Your task to perform on an android device: uninstall "Venmo" Image 0: 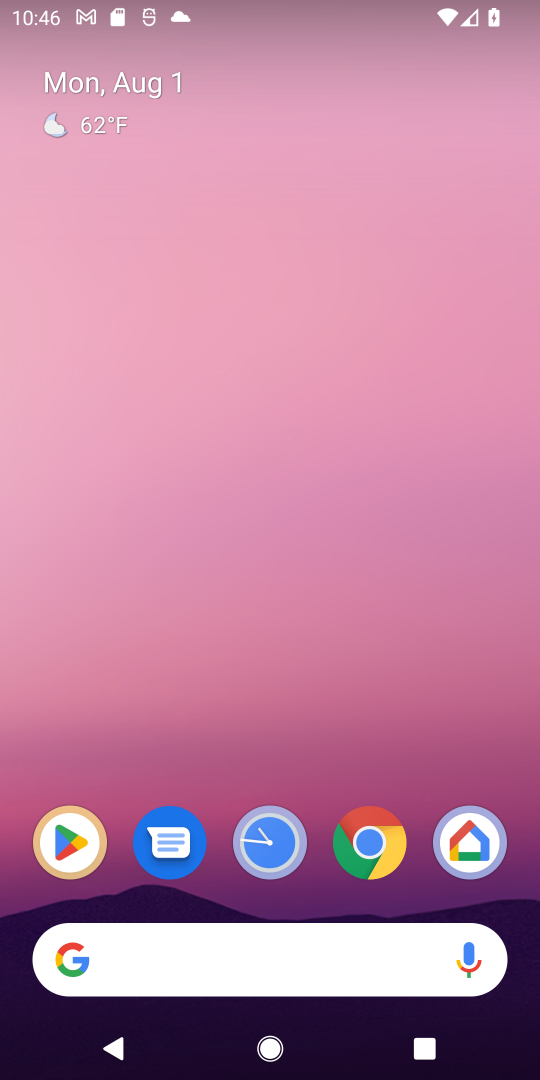
Step 0: drag from (249, 863) to (336, 24)
Your task to perform on an android device: uninstall "Venmo" Image 1: 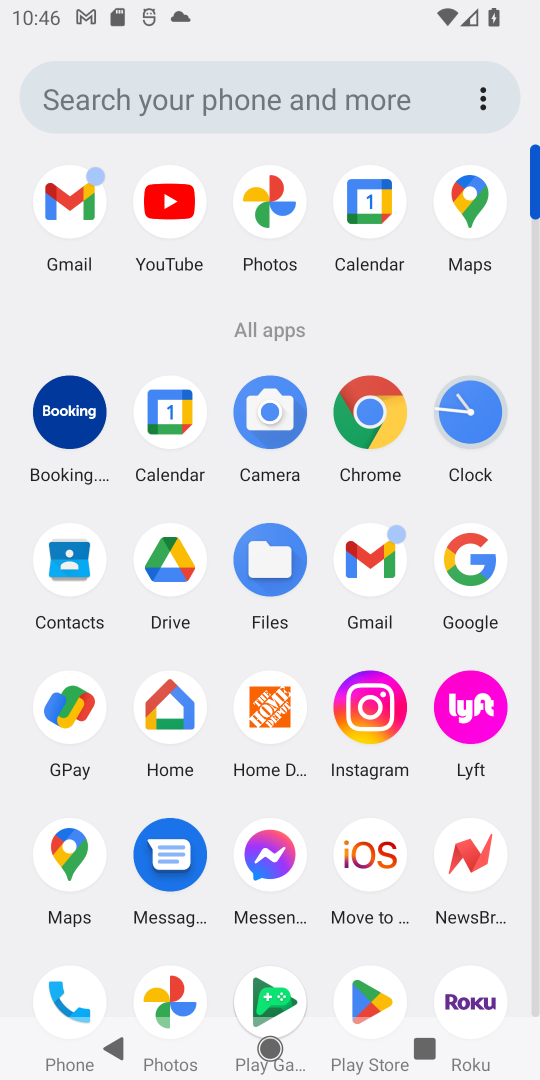
Step 1: click (370, 983)
Your task to perform on an android device: uninstall "Venmo" Image 2: 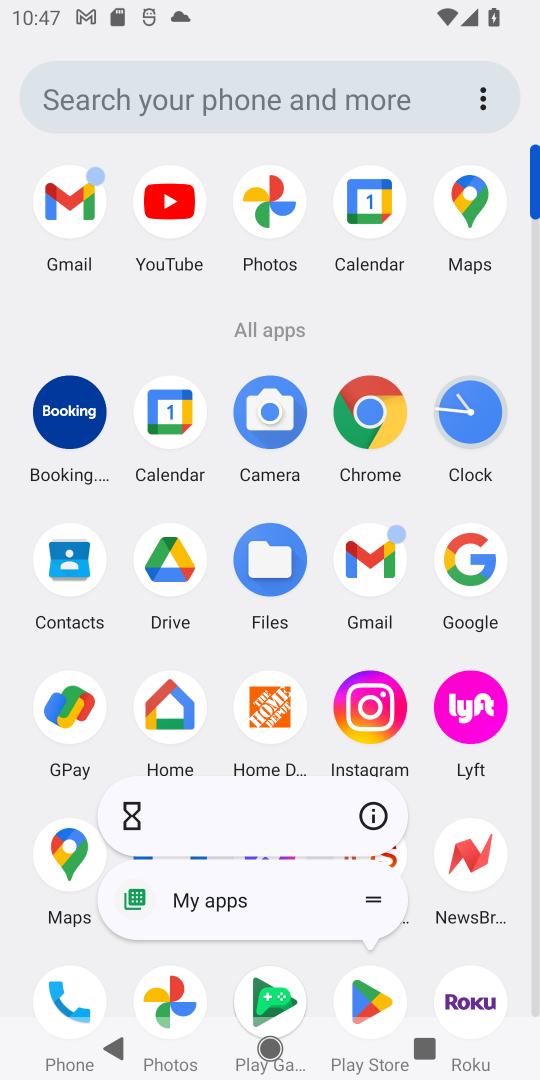
Step 2: click (110, 311)
Your task to perform on an android device: uninstall "Venmo" Image 3: 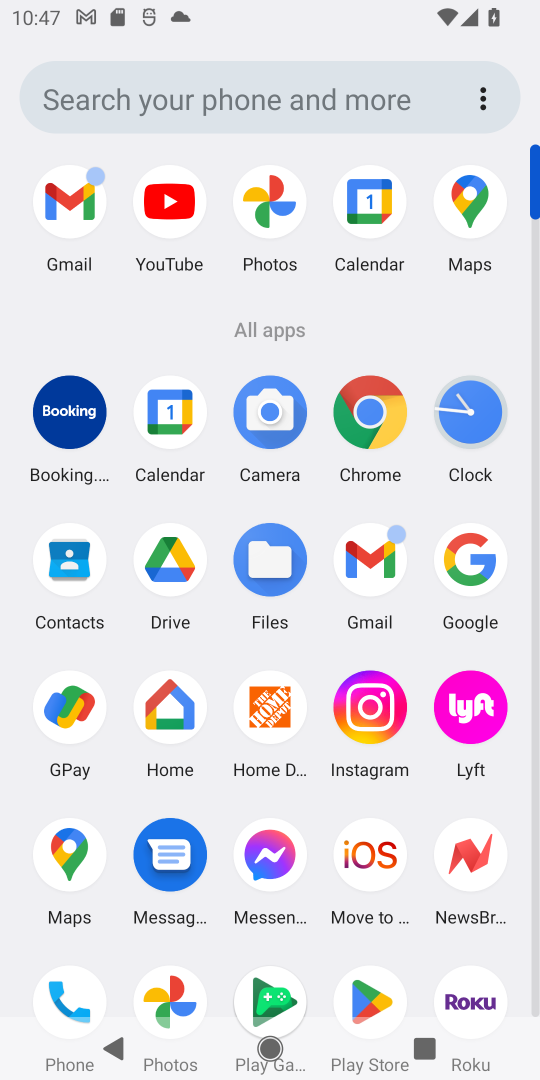
Step 3: click (356, 986)
Your task to perform on an android device: uninstall "Venmo" Image 4: 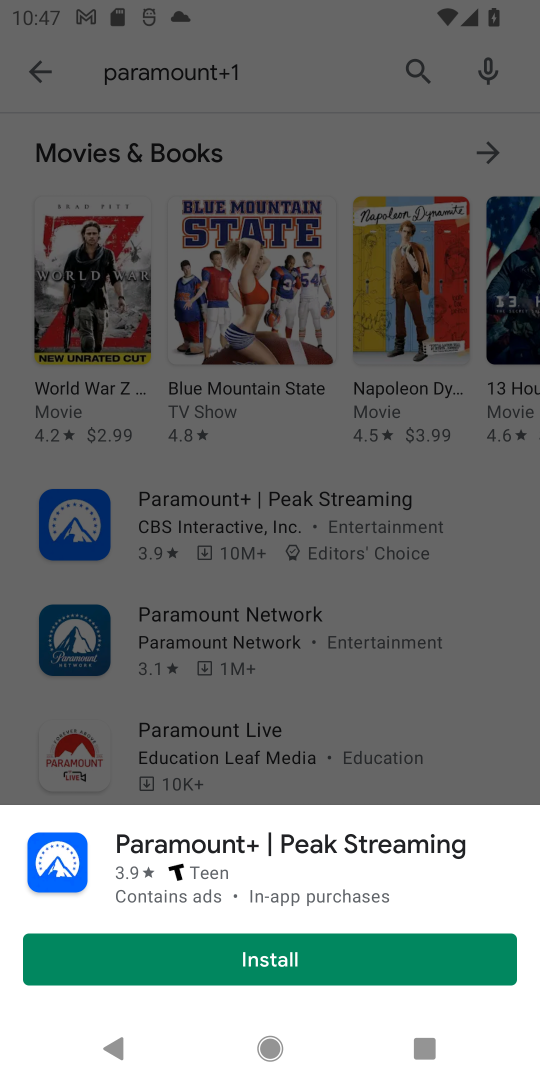
Step 4: click (370, 84)
Your task to perform on an android device: uninstall "Venmo" Image 5: 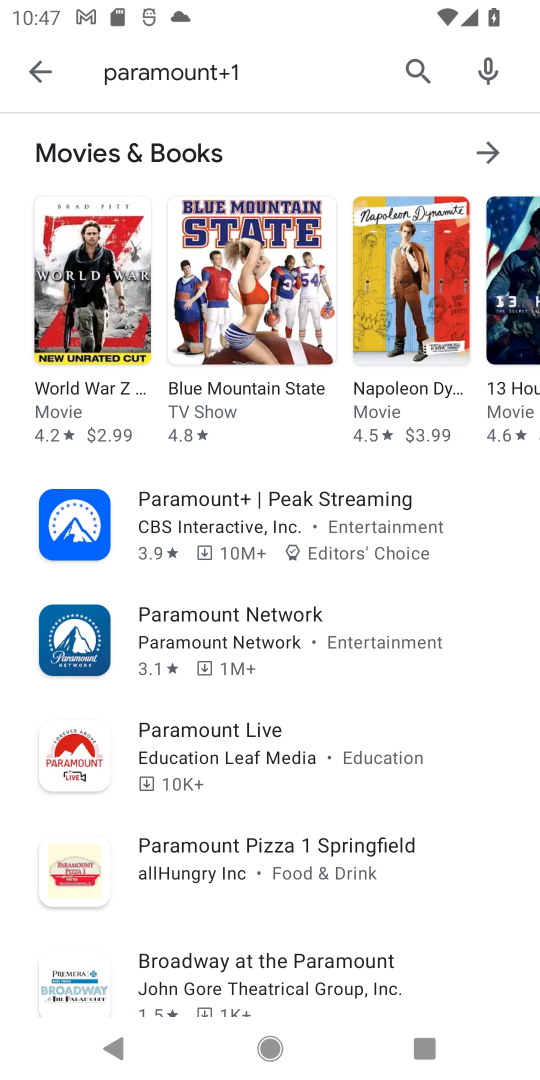
Step 5: click (411, 73)
Your task to perform on an android device: uninstall "Venmo" Image 6: 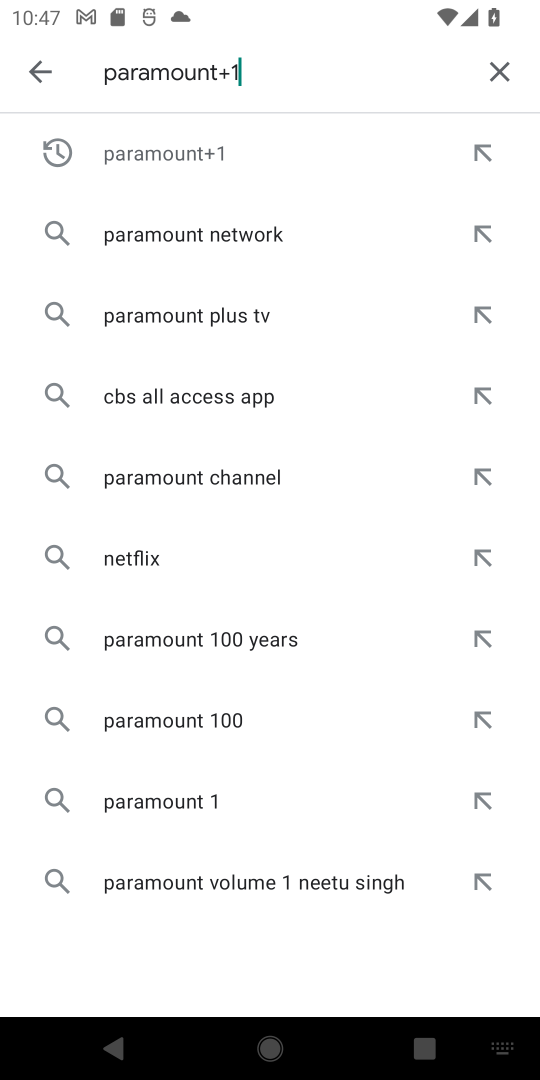
Step 6: click (488, 68)
Your task to perform on an android device: uninstall "Venmo" Image 7: 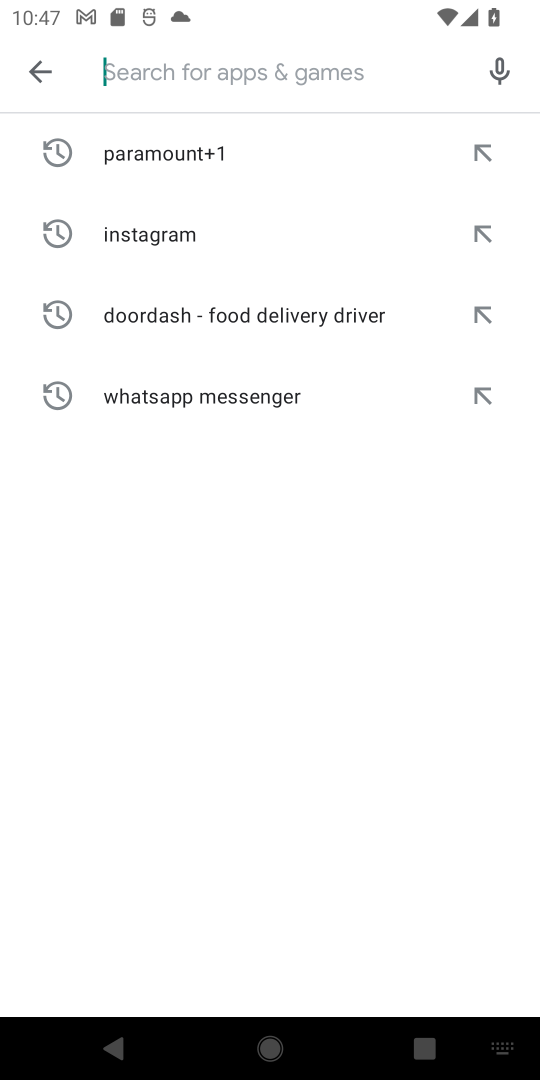
Step 7: click (180, 53)
Your task to perform on an android device: uninstall "Venmo" Image 8: 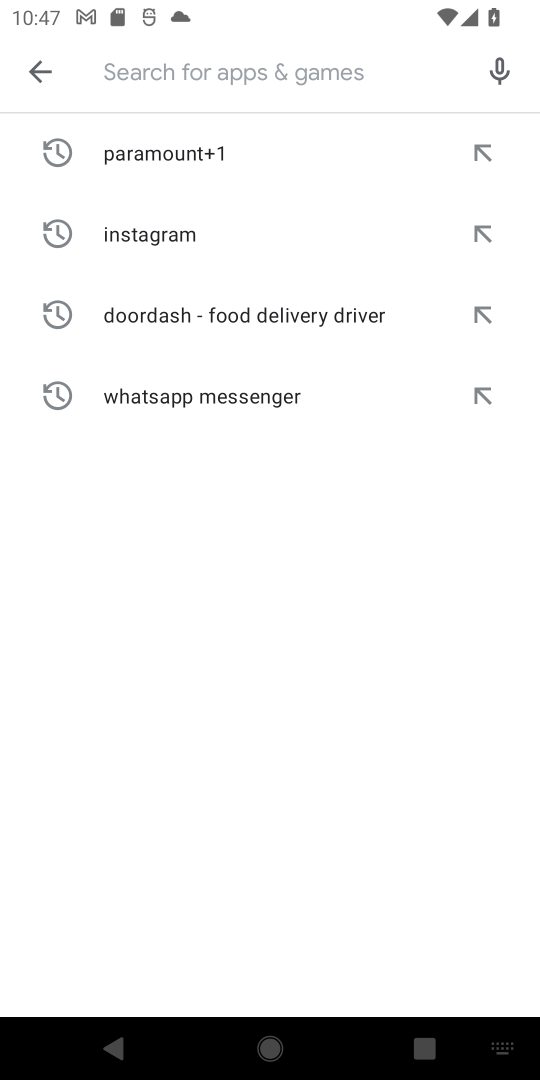
Step 8: type "Venmo"
Your task to perform on an android device: uninstall "Venmo" Image 9: 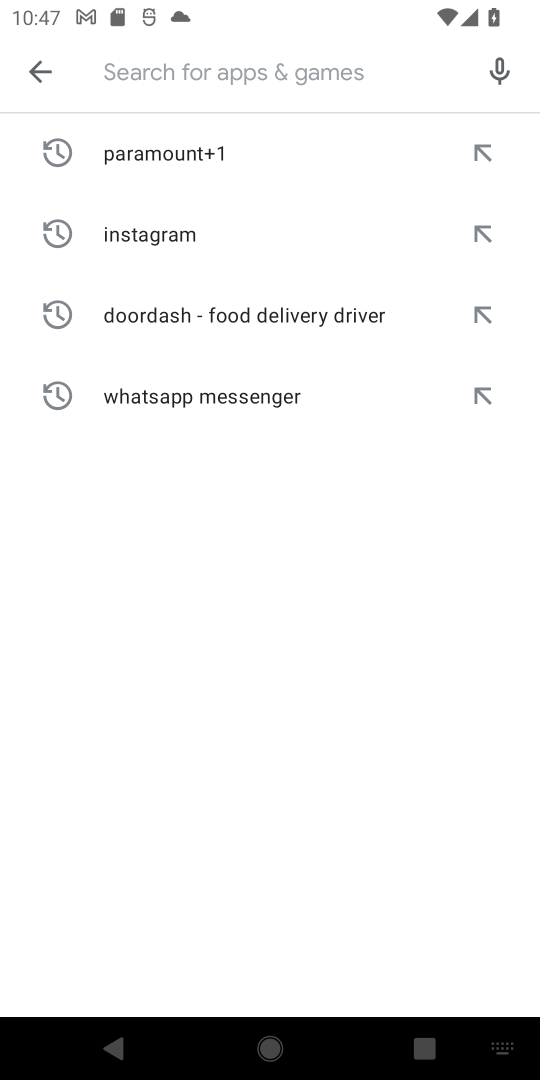
Step 9: click (240, 646)
Your task to perform on an android device: uninstall "Venmo" Image 10: 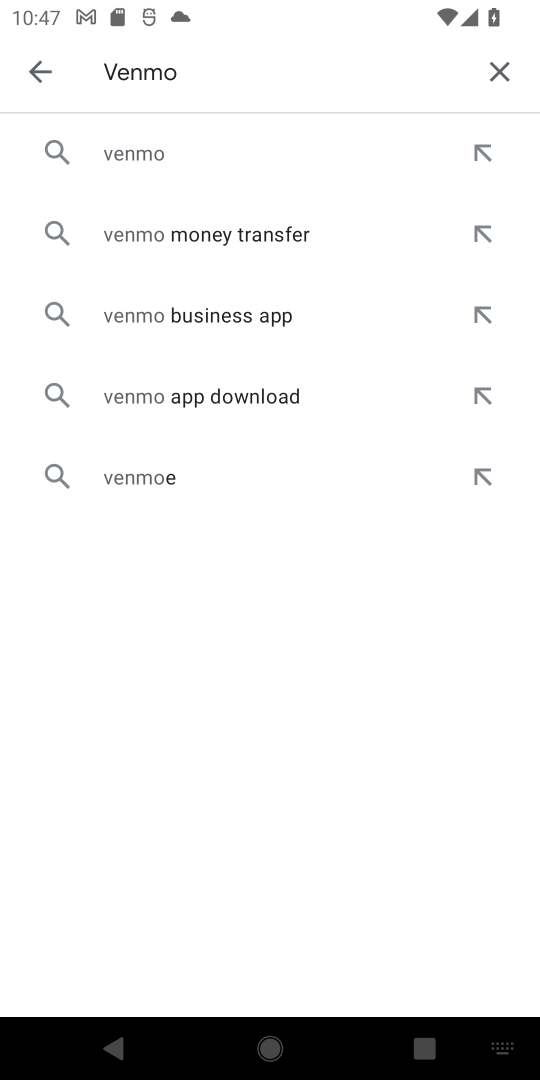
Step 10: click (145, 153)
Your task to perform on an android device: uninstall "Venmo" Image 11: 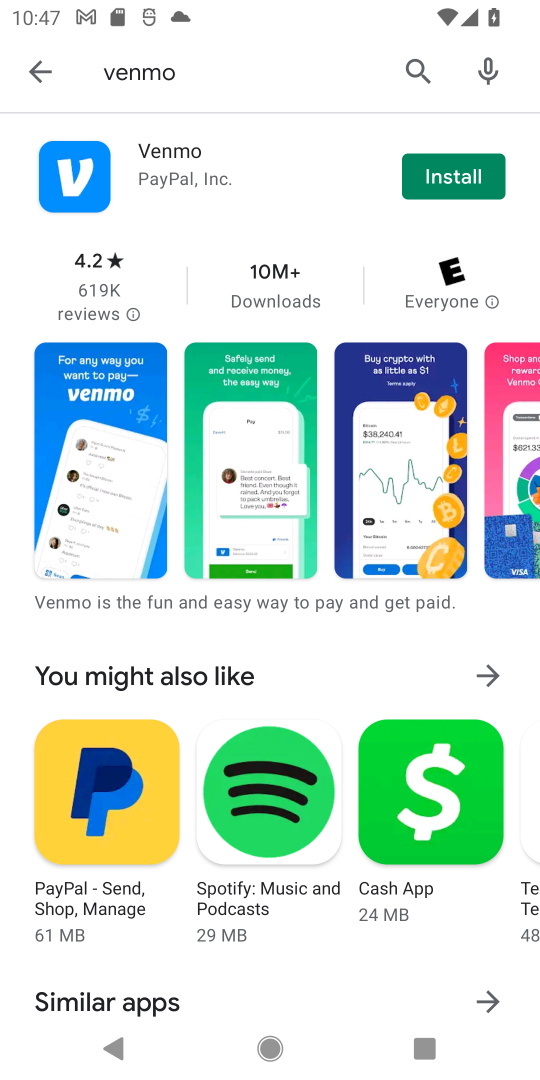
Step 11: task complete